Your task to perform on an android device: check google app version Image 0: 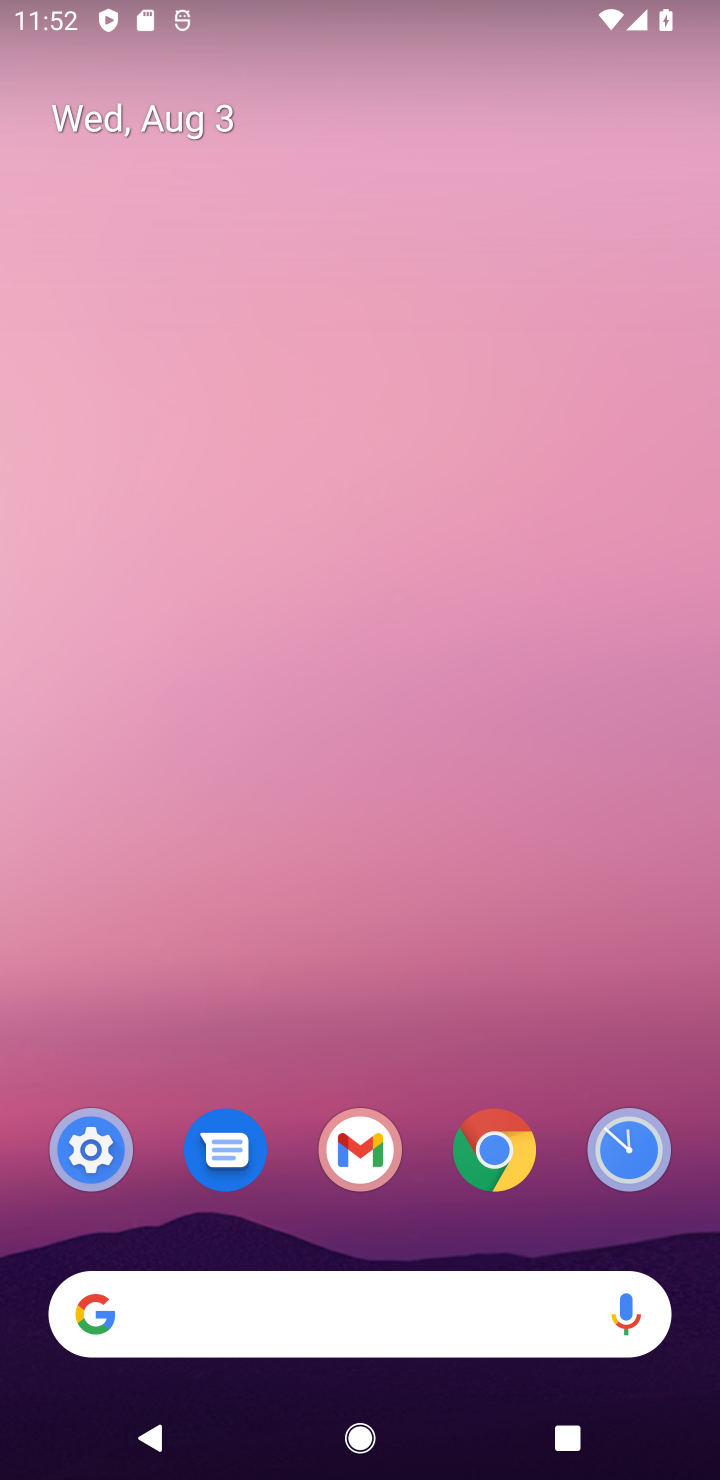
Step 0: press home button
Your task to perform on an android device: check google app version Image 1: 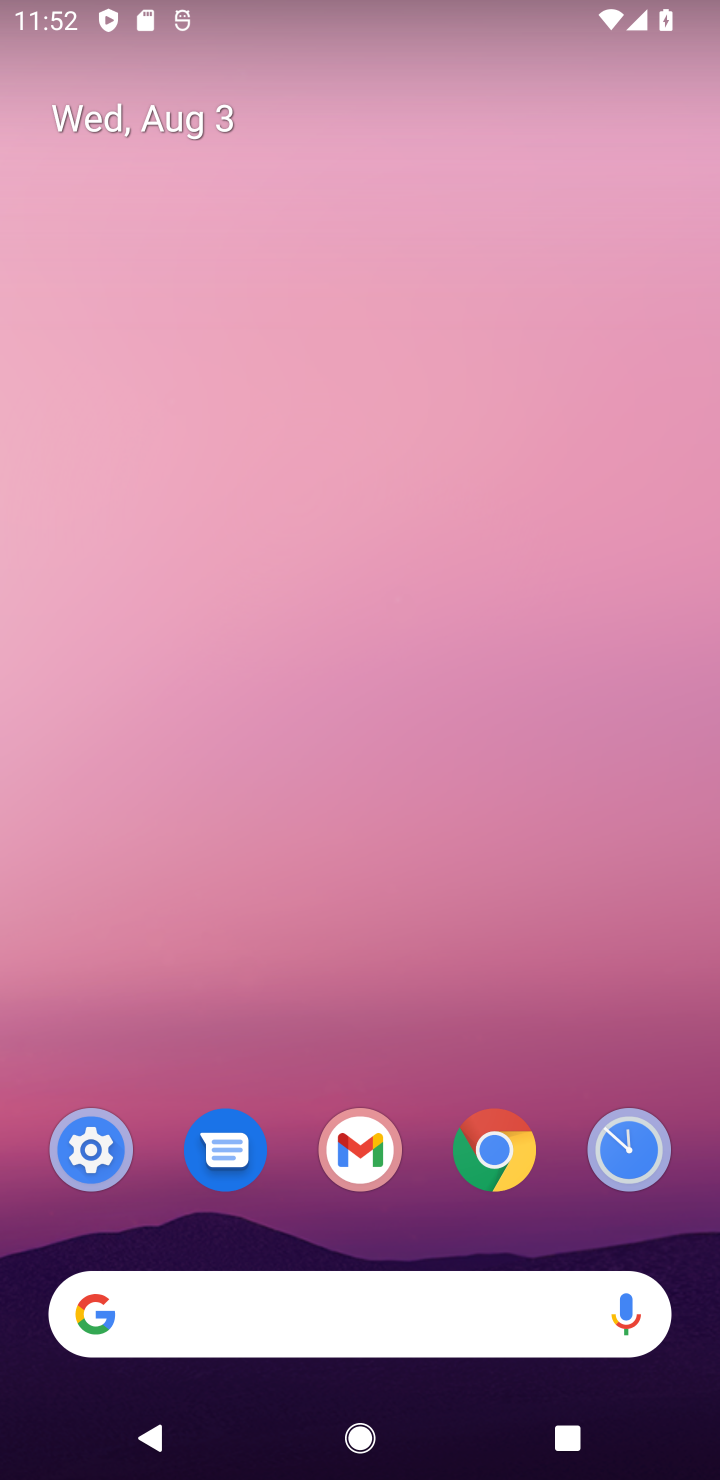
Step 1: drag from (418, 1001) to (437, 273)
Your task to perform on an android device: check google app version Image 2: 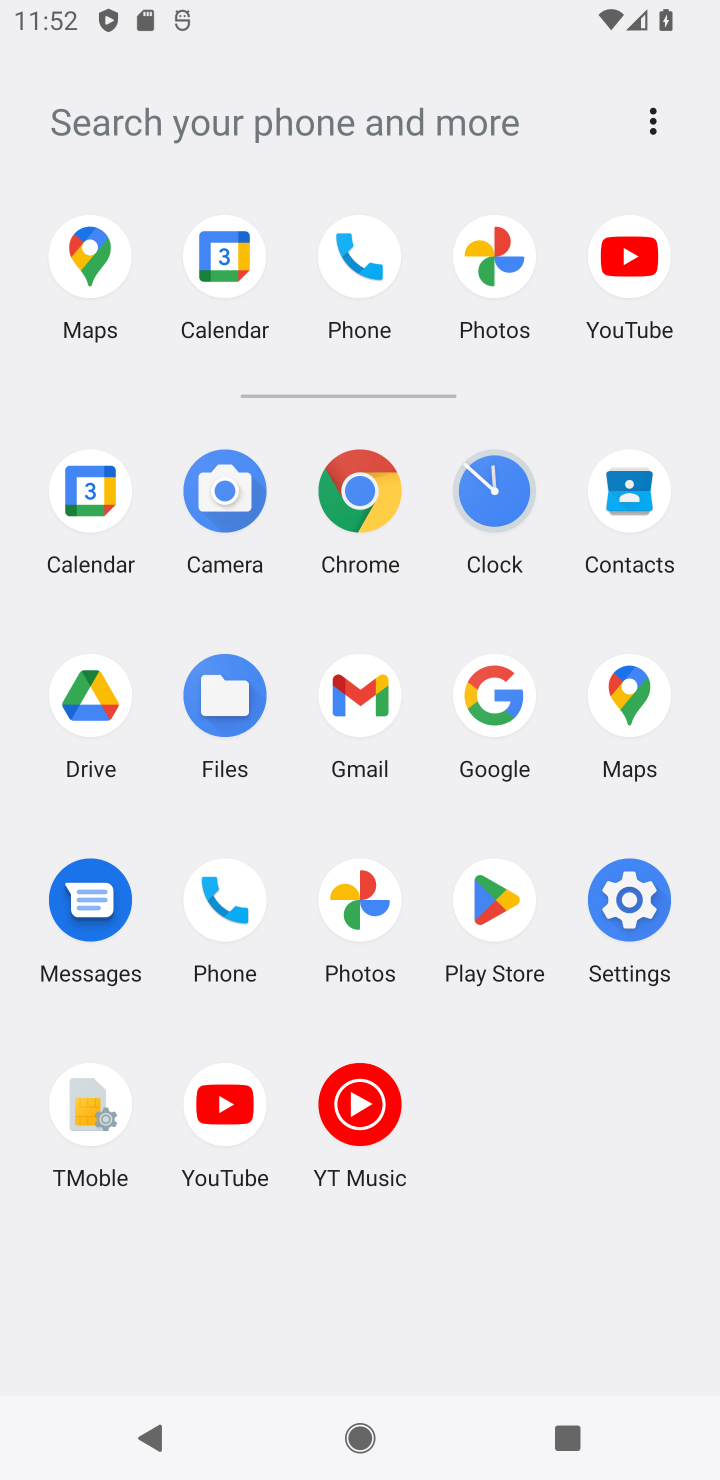
Step 2: click (503, 683)
Your task to perform on an android device: check google app version Image 3: 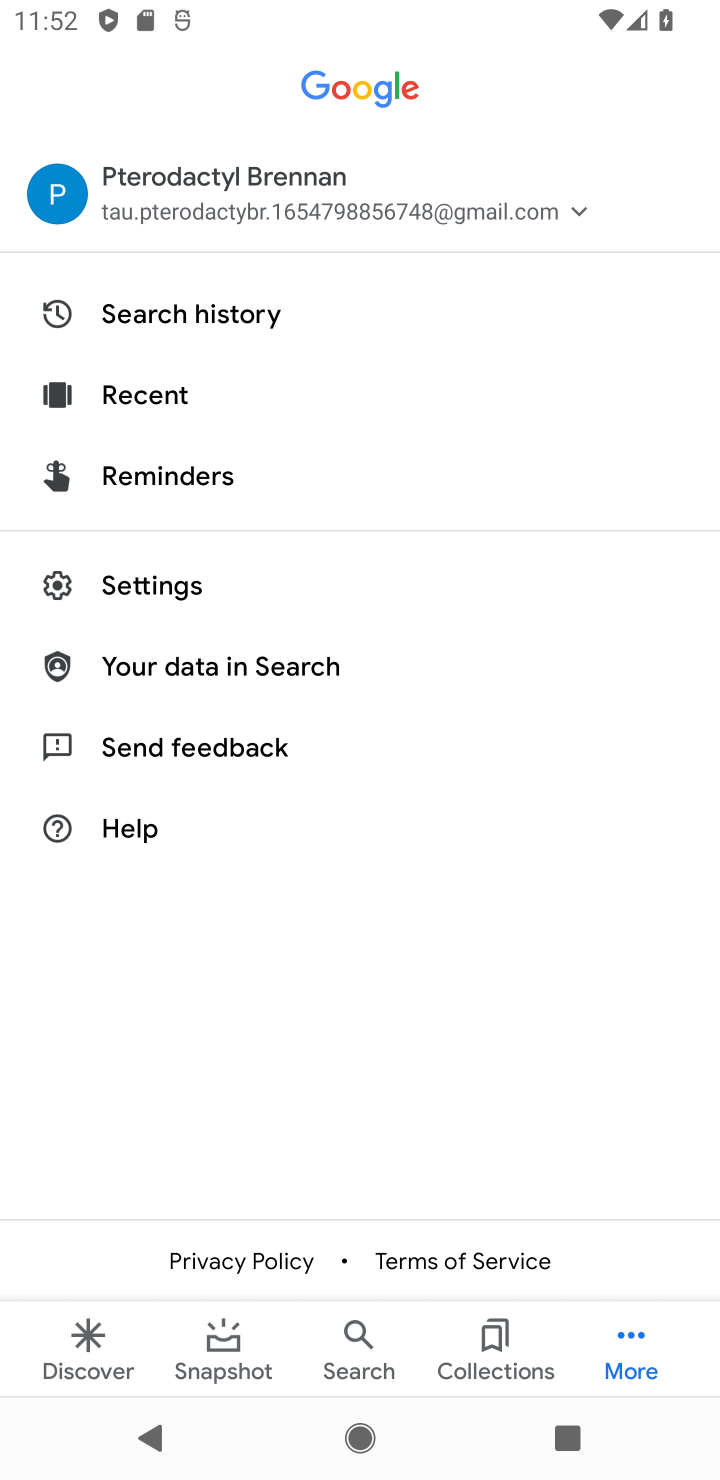
Step 3: click (225, 599)
Your task to perform on an android device: check google app version Image 4: 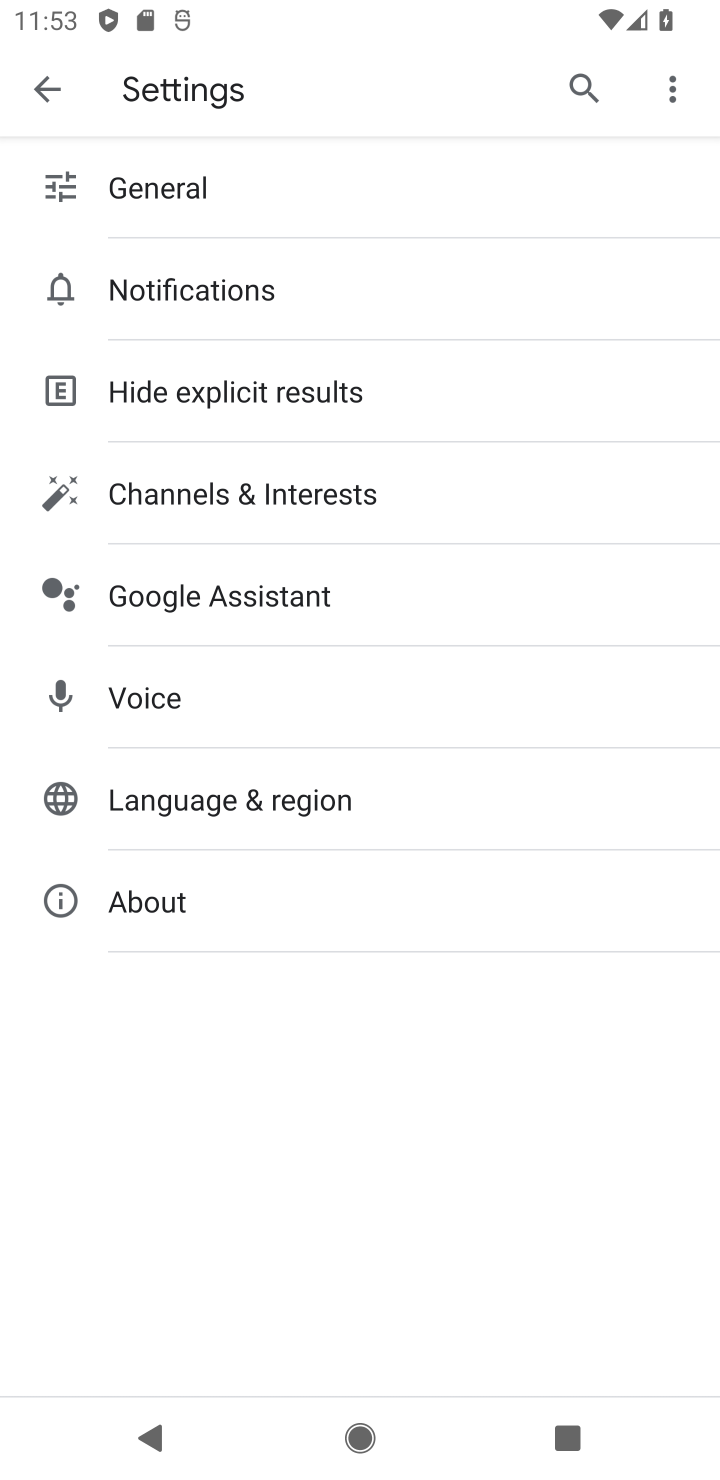
Step 4: click (379, 901)
Your task to perform on an android device: check google app version Image 5: 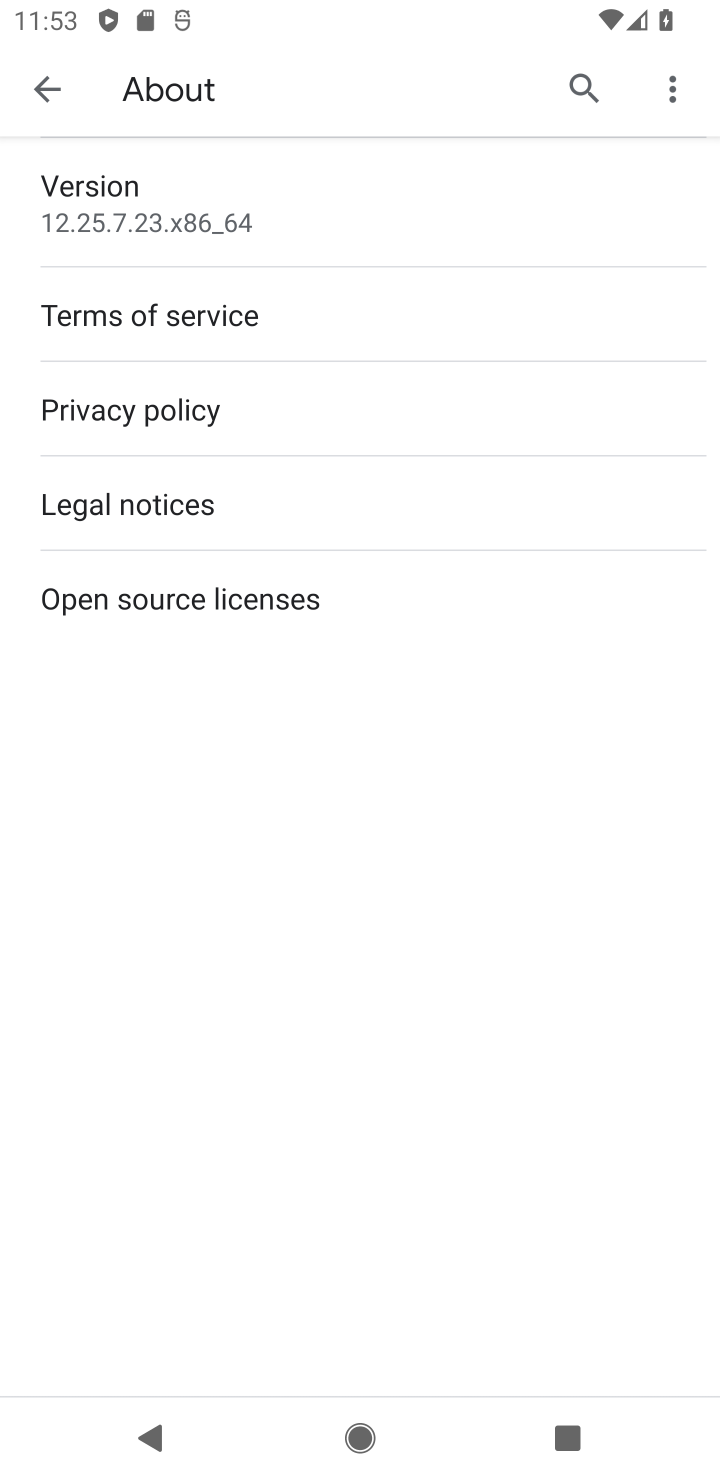
Step 5: task complete